Your task to perform on an android device: change timer sound Image 0: 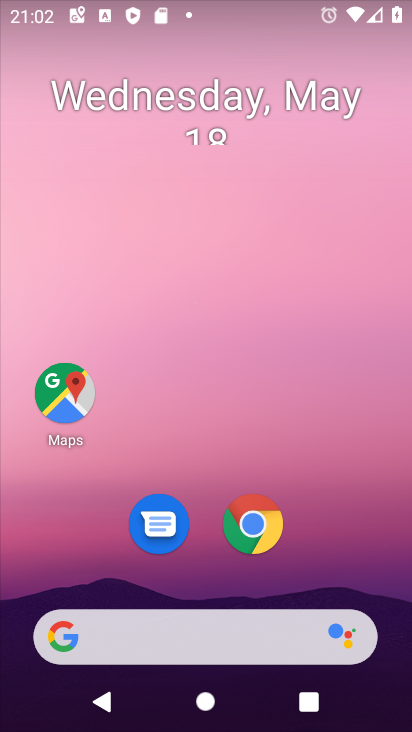
Step 0: drag from (215, 464) to (232, 50)
Your task to perform on an android device: change timer sound Image 1: 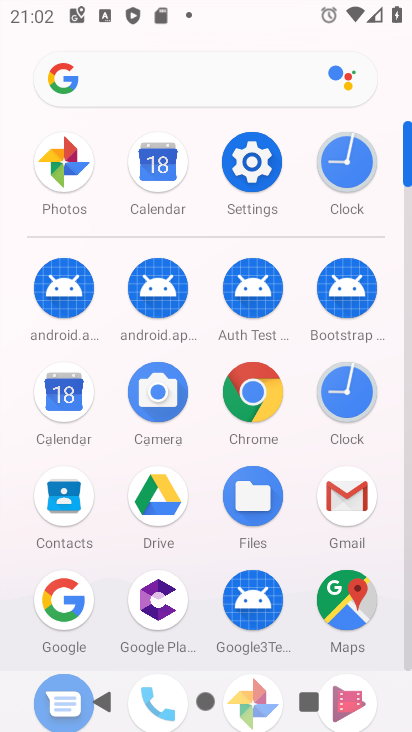
Step 1: click (338, 157)
Your task to perform on an android device: change timer sound Image 2: 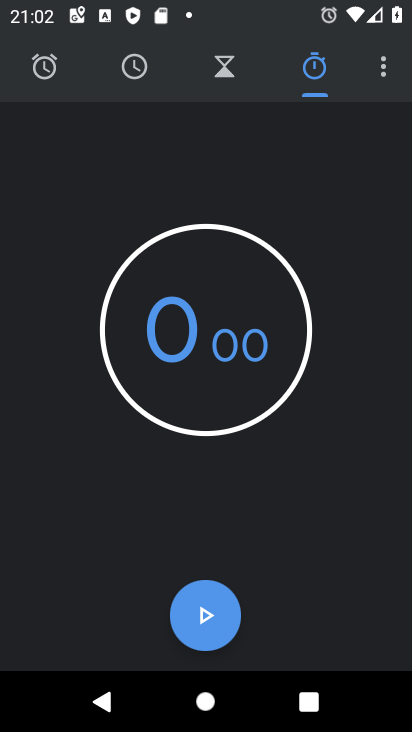
Step 2: click (379, 74)
Your task to perform on an android device: change timer sound Image 3: 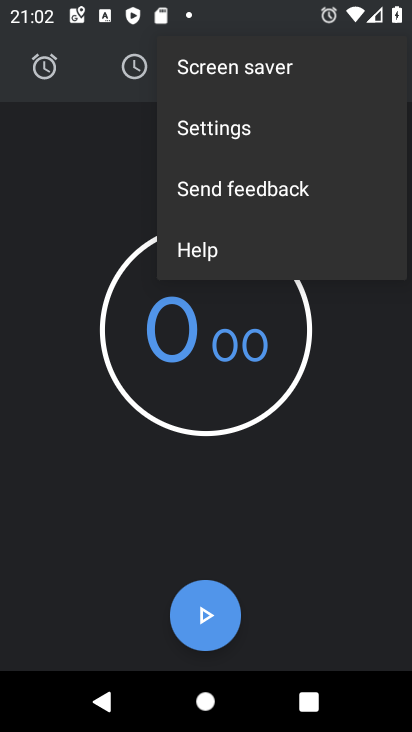
Step 3: click (279, 122)
Your task to perform on an android device: change timer sound Image 4: 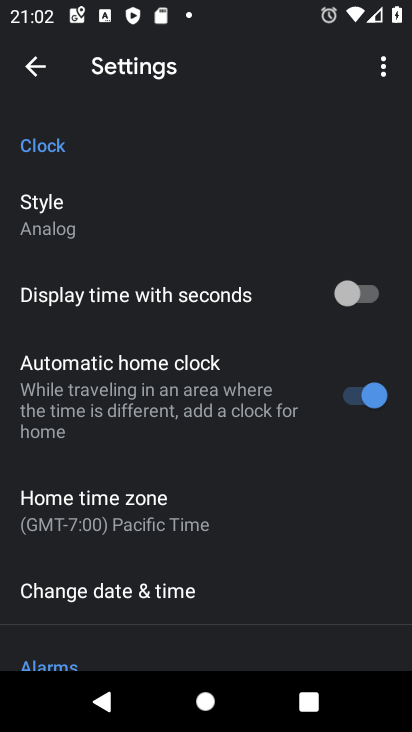
Step 4: drag from (218, 541) to (246, 170)
Your task to perform on an android device: change timer sound Image 5: 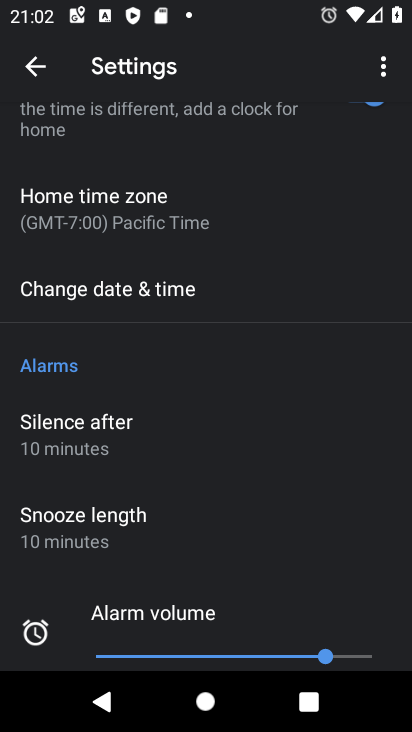
Step 5: drag from (217, 526) to (239, 125)
Your task to perform on an android device: change timer sound Image 6: 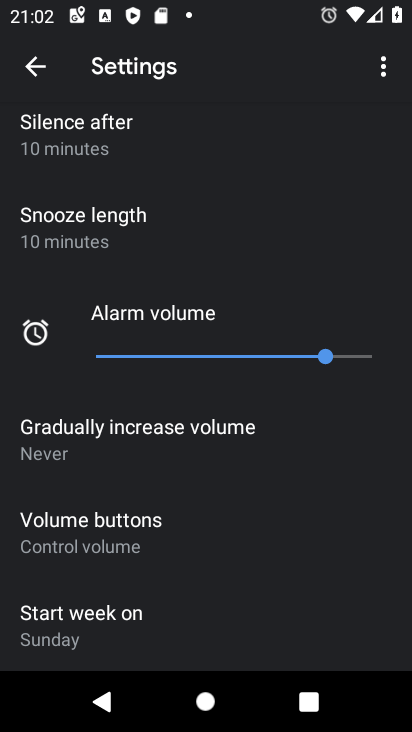
Step 6: drag from (186, 515) to (213, 110)
Your task to perform on an android device: change timer sound Image 7: 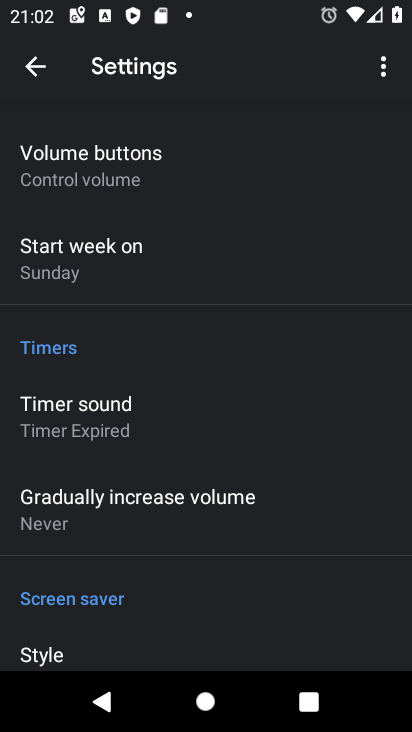
Step 7: click (129, 411)
Your task to perform on an android device: change timer sound Image 8: 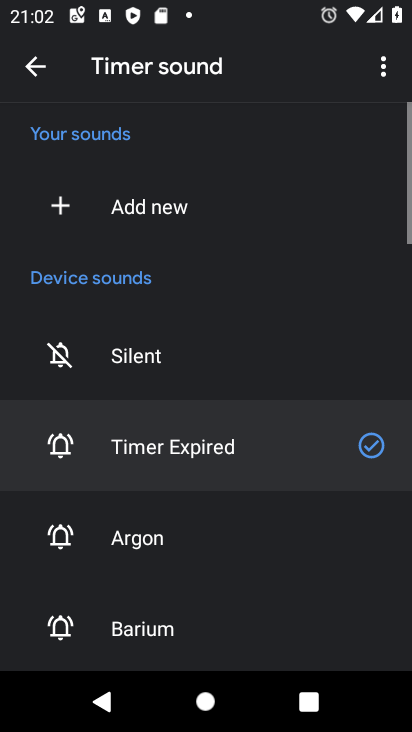
Step 8: click (129, 547)
Your task to perform on an android device: change timer sound Image 9: 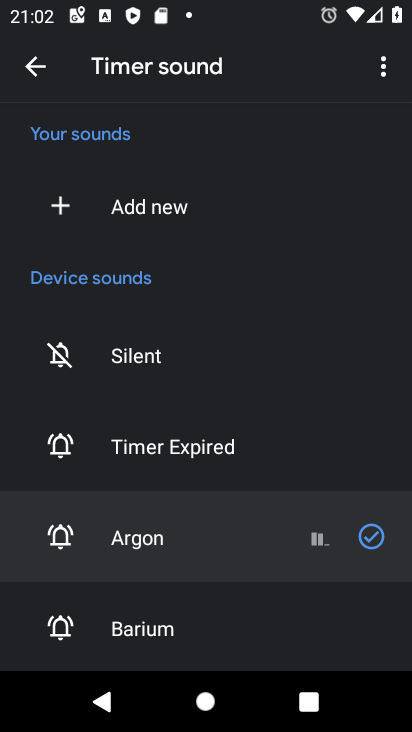
Step 9: task complete